Your task to perform on an android device: check storage Image 0: 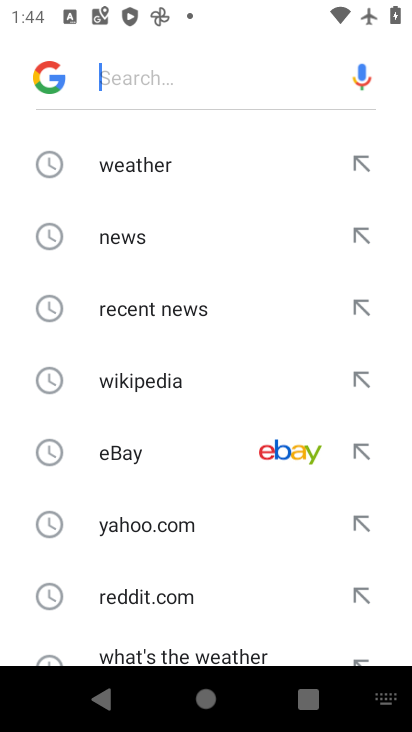
Step 0: press home button
Your task to perform on an android device: check storage Image 1: 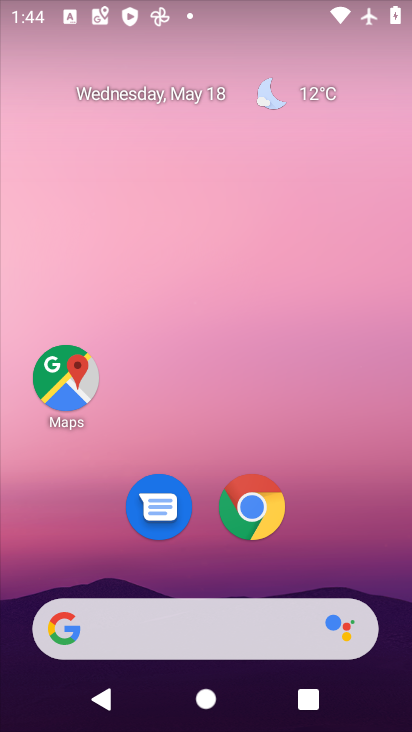
Step 1: drag from (383, 527) to (312, 134)
Your task to perform on an android device: check storage Image 2: 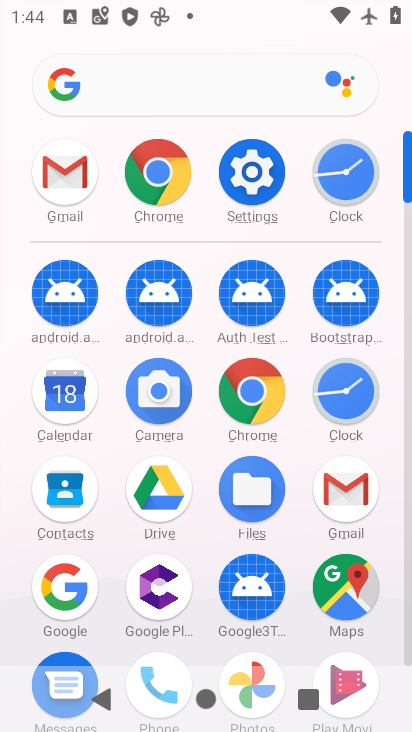
Step 2: click (410, 654)
Your task to perform on an android device: check storage Image 3: 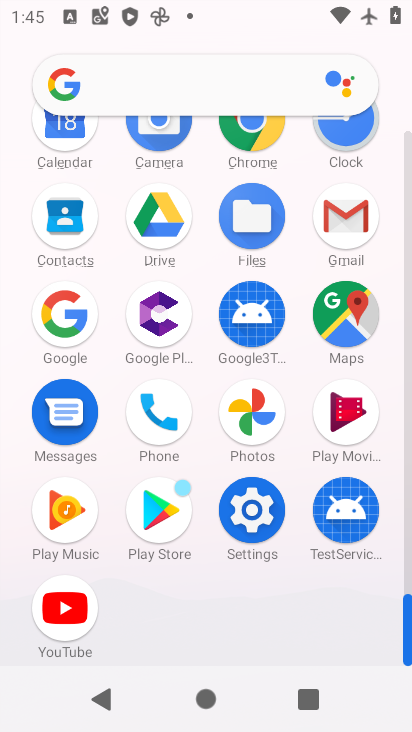
Step 3: click (250, 507)
Your task to perform on an android device: check storage Image 4: 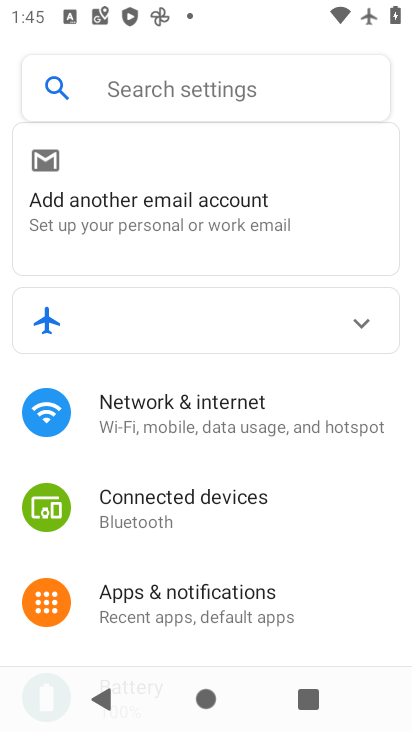
Step 4: drag from (333, 584) to (328, 200)
Your task to perform on an android device: check storage Image 5: 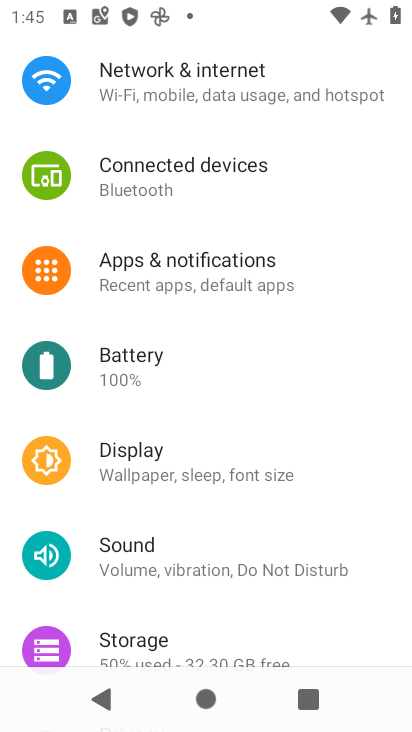
Step 5: drag from (340, 583) to (338, 273)
Your task to perform on an android device: check storage Image 6: 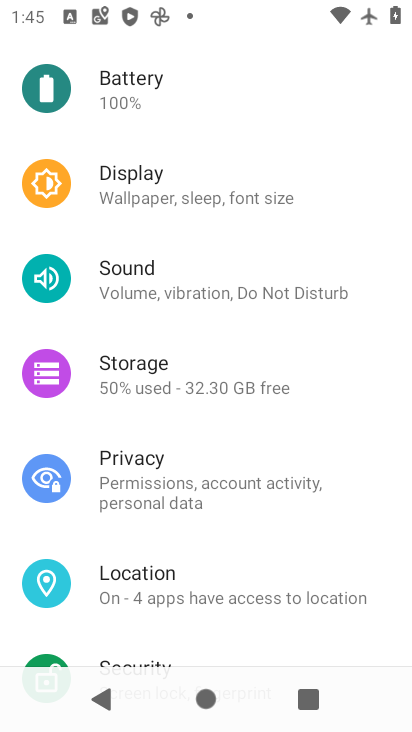
Step 6: click (132, 374)
Your task to perform on an android device: check storage Image 7: 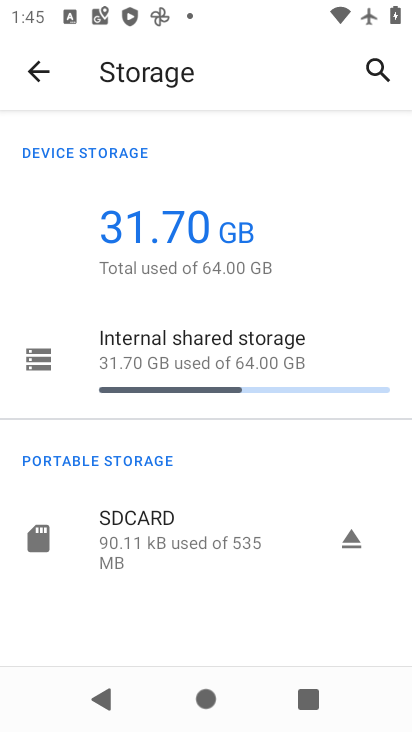
Step 7: task complete